Your task to perform on an android device: Go to ESPN.com Image 0: 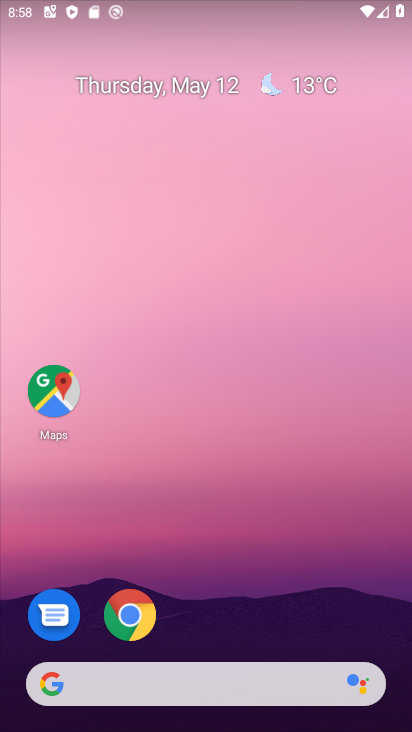
Step 0: click (146, 624)
Your task to perform on an android device: Go to ESPN.com Image 1: 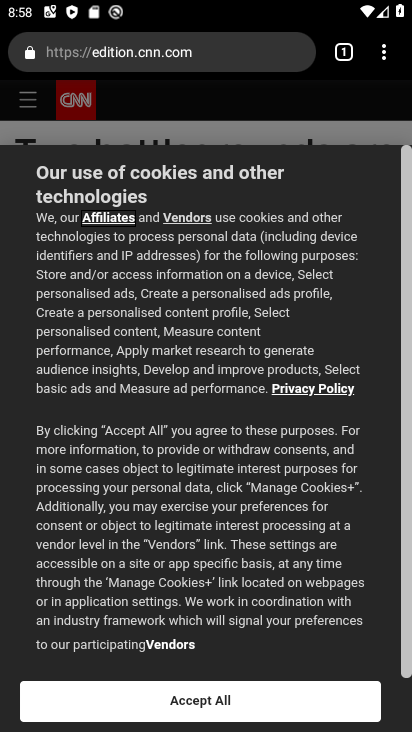
Step 1: click (344, 36)
Your task to perform on an android device: Go to ESPN.com Image 2: 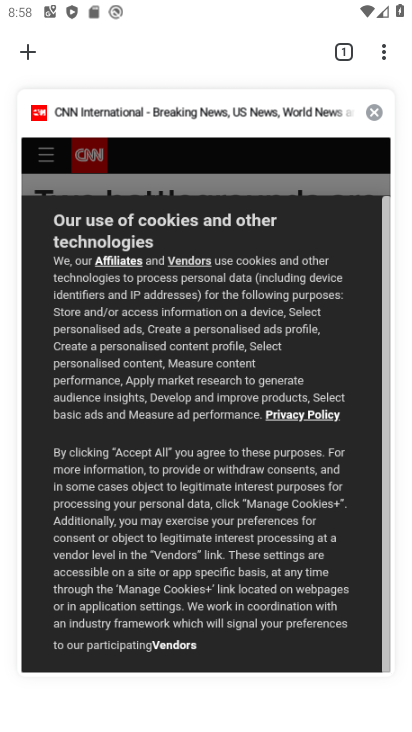
Step 2: click (31, 49)
Your task to perform on an android device: Go to ESPN.com Image 3: 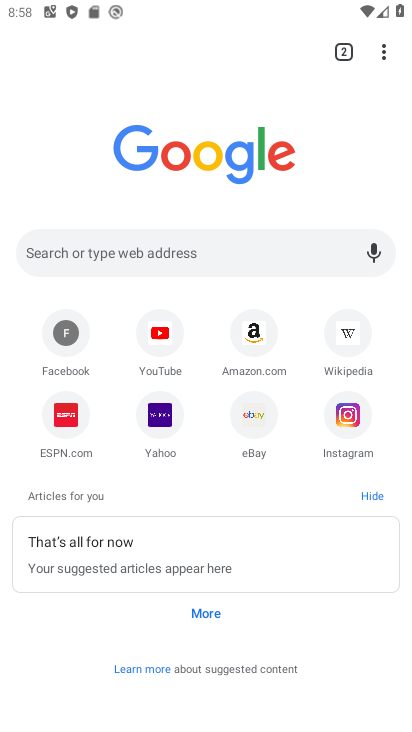
Step 3: click (89, 420)
Your task to perform on an android device: Go to ESPN.com Image 4: 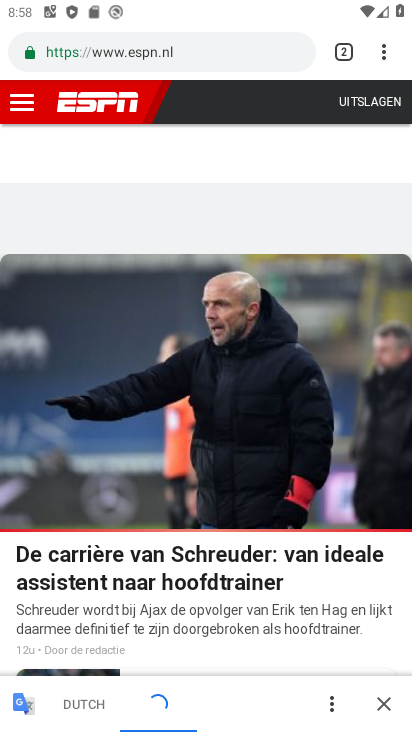
Step 4: task complete